Your task to perform on an android device: Go to eBay Image 0: 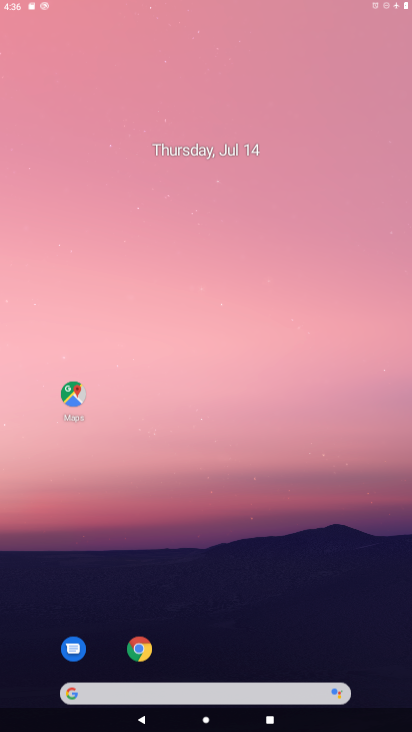
Step 0: drag from (408, 285) to (262, 20)
Your task to perform on an android device: Go to eBay Image 1: 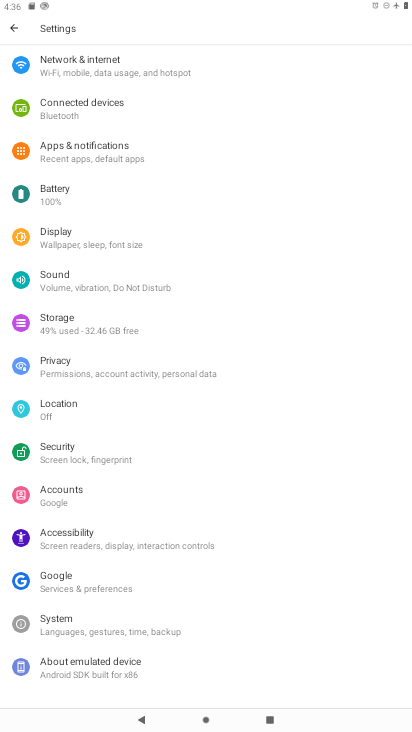
Step 1: press home button
Your task to perform on an android device: Go to eBay Image 2: 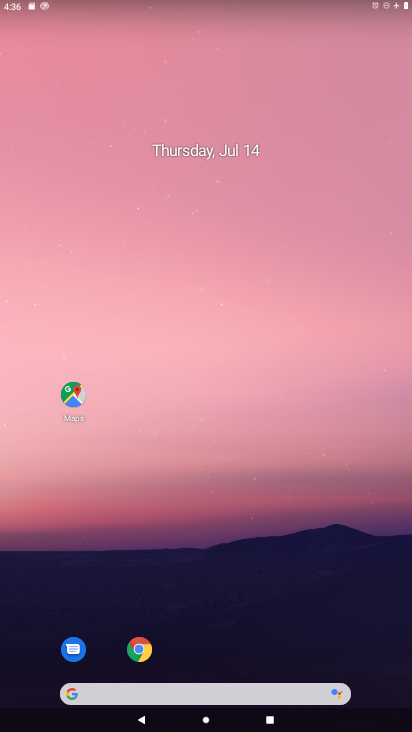
Step 2: click (142, 655)
Your task to perform on an android device: Go to eBay Image 3: 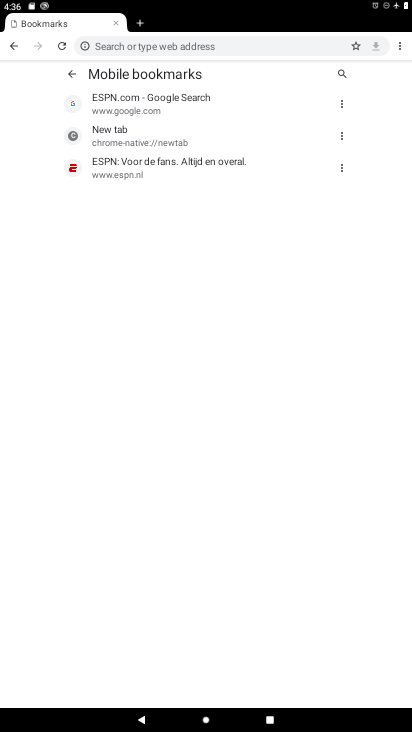
Step 3: click (125, 41)
Your task to perform on an android device: Go to eBay Image 4: 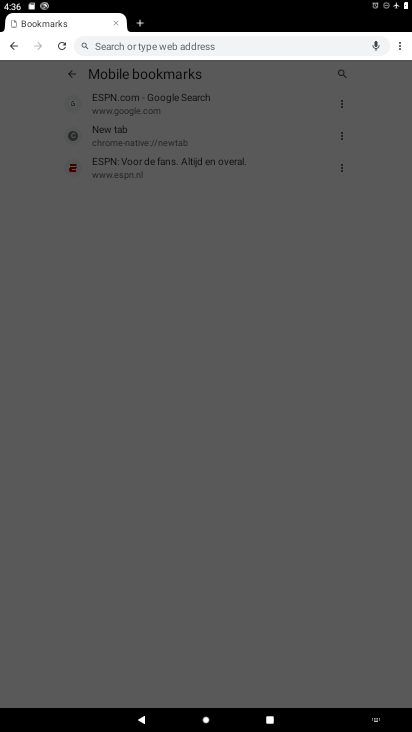
Step 4: type "eBay"
Your task to perform on an android device: Go to eBay Image 5: 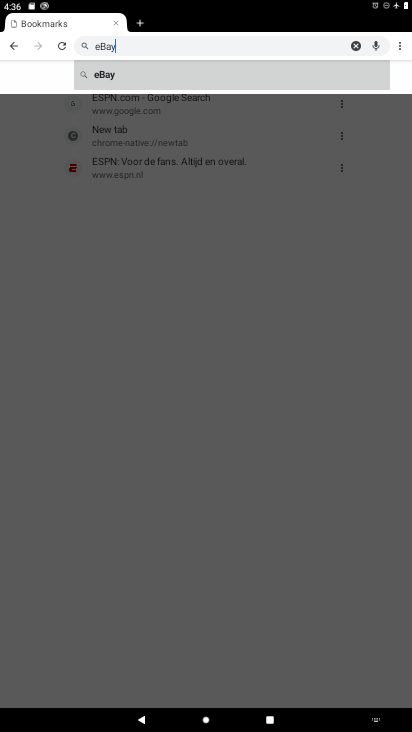
Step 5: click (157, 71)
Your task to perform on an android device: Go to eBay Image 6: 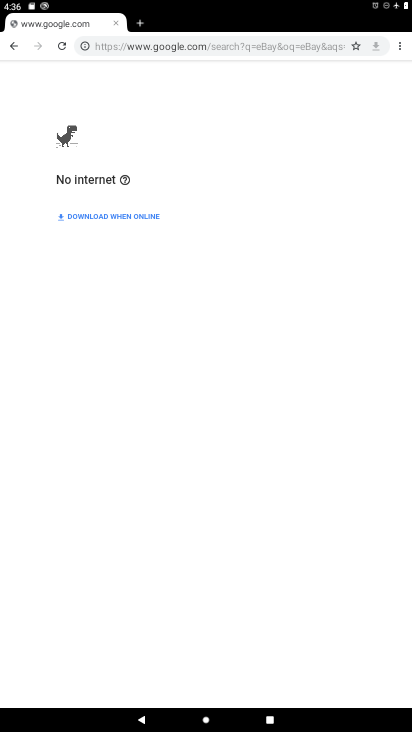
Step 6: task complete